Your task to perform on an android device: change the clock display to show seconds Image 0: 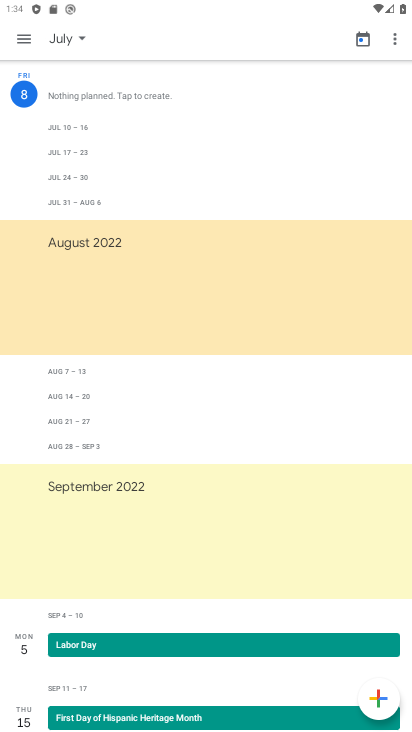
Step 0: press home button
Your task to perform on an android device: change the clock display to show seconds Image 1: 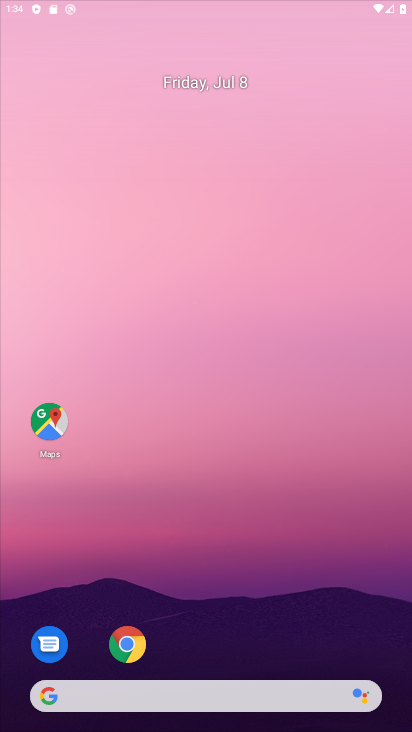
Step 1: drag from (276, 593) to (290, 67)
Your task to perform on an android device: change the clock display to show seconds Image 2: 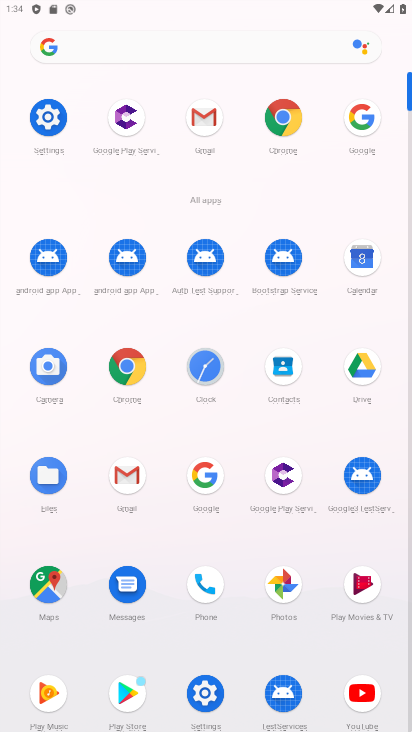
Step 2: click (201, 369)
Your task to perform on an android device: change the clock display to show seconds Image 3: 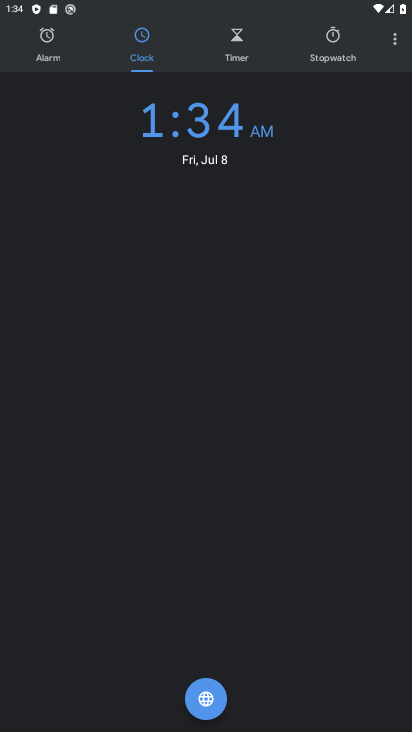
Step 3: click (396, 40)
Your task to perform on an android device: change the clock display to show seconds Image 4: 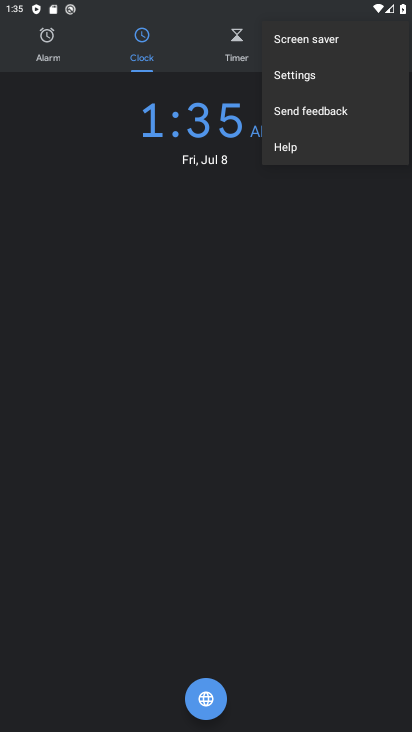
Step 4: click (312, 70)
Your task to perform on an android device: change the clock display to show seconds Image 5: 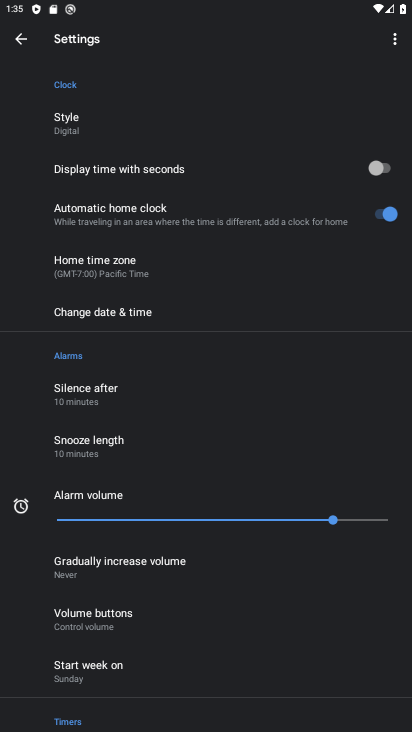
Step 5: click (375, 168)
Your task to perform on an android device: change the clock display to show seconds Image 6: 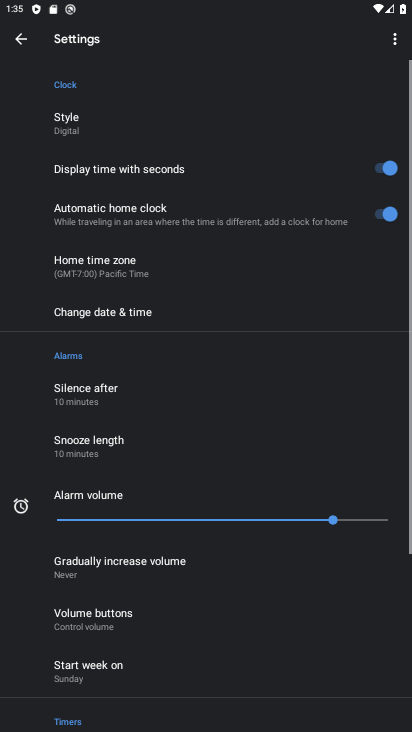
Step 6: task complete